Your task to perform on an android device: Search for "The Dispatcher" by John Scalzi on Goodreads Image 0: 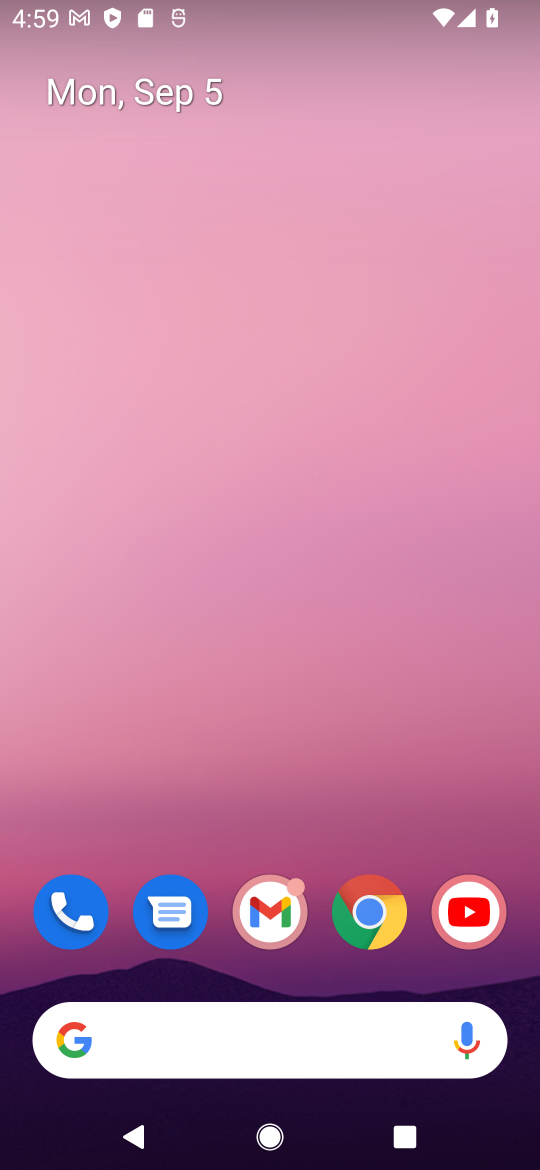
Step 0: click (373, 920)
Your task to perform on an android device: Search for "The Dispatcher" by John Scalzi on Goodreads Image 1: 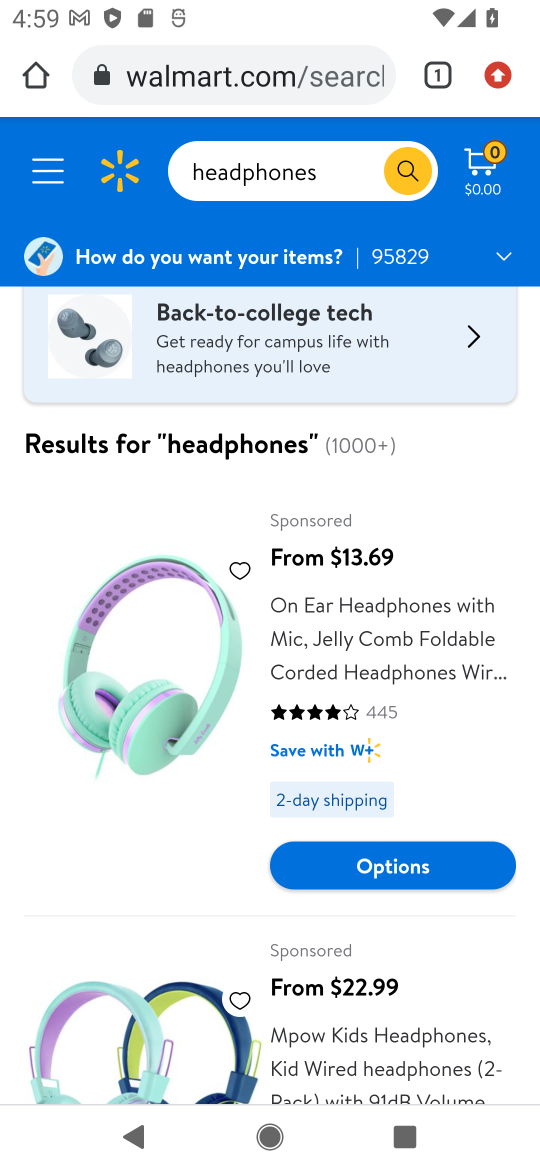
Step 1: click (280, 76)
Your task to perform on an android device: Search for "The Dispatcher" by John Scalzi on Goodreads Image 2: 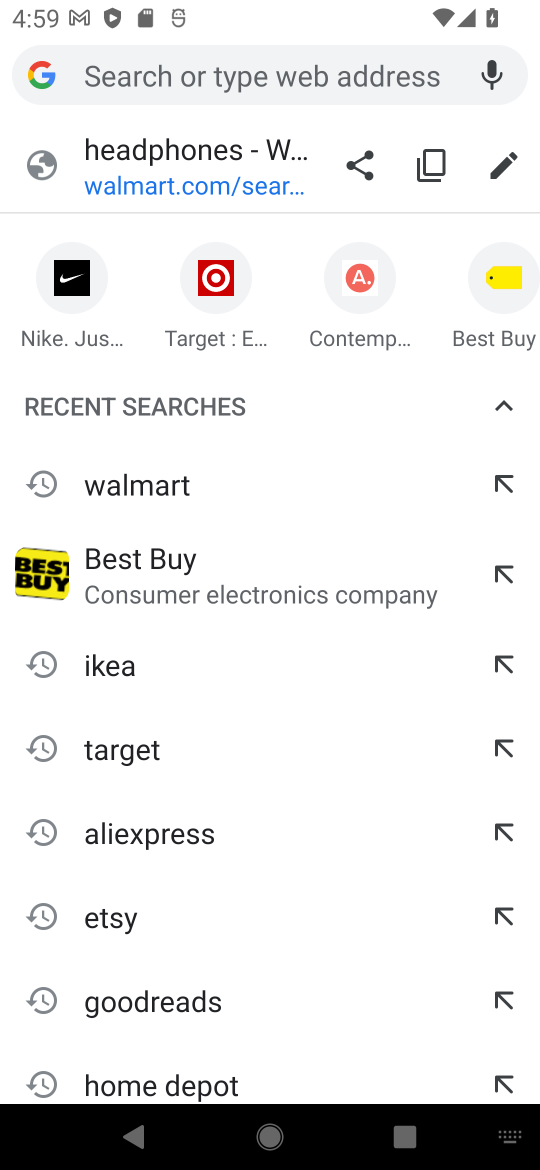
Step 2: type "goodreads"
Your task to perform on an android device: Search for "The Dispatcher" by John Scalzi on Goodreads Image 3: 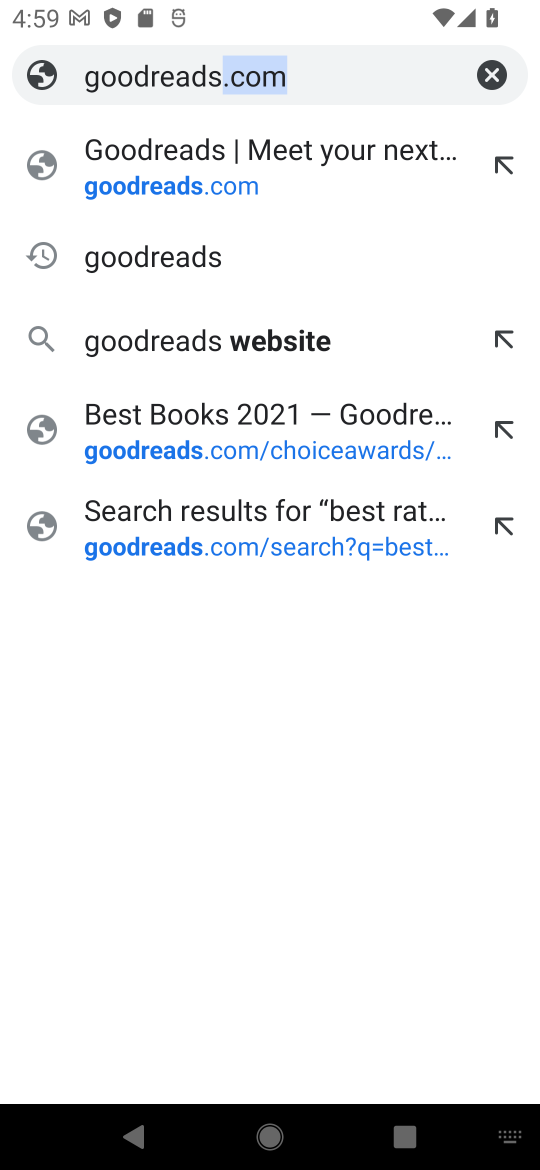
Step 3: press enter
Your task to perform on an android device: Search for "The Dispatcher" by John Scalzi on Goodreads Image 4: 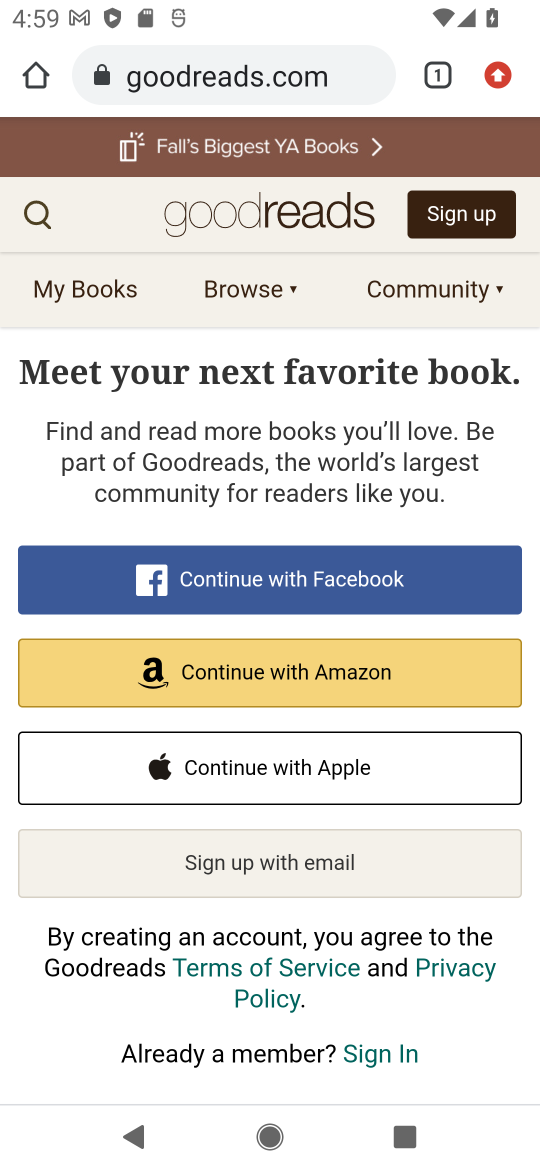
Step 4: click (311, 927)
Your task to perform on an android device: Search for "The Dispatcher" by John Scalzi on Goodreads Image 5: 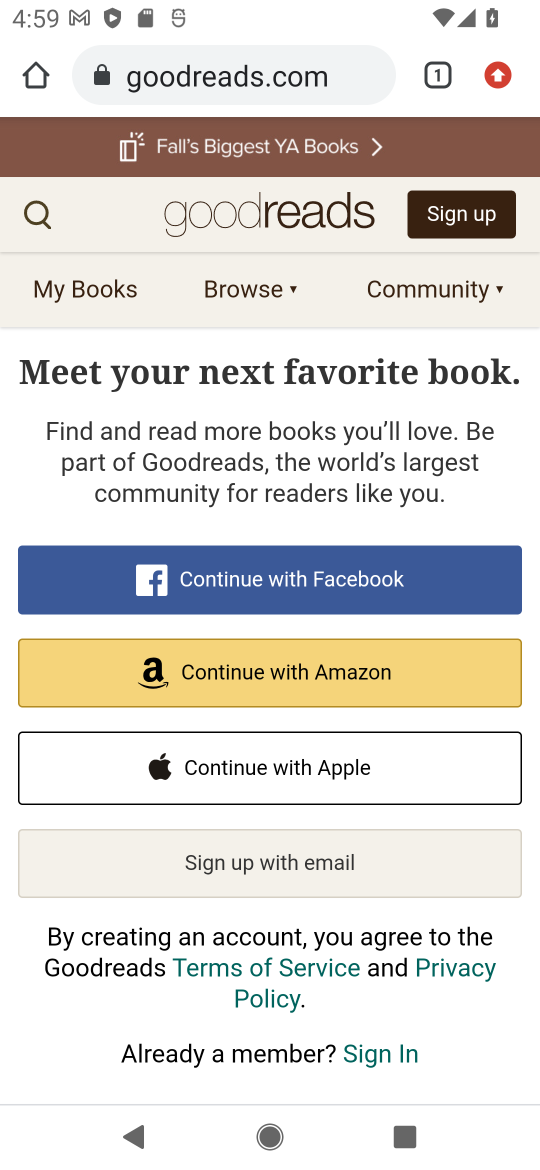
Step 5: drag from (295, 967) to (292, 464)
Your task to perform on an android device: Search for "The Dispatcher" by John Scalzi on Goodreads Image 6: 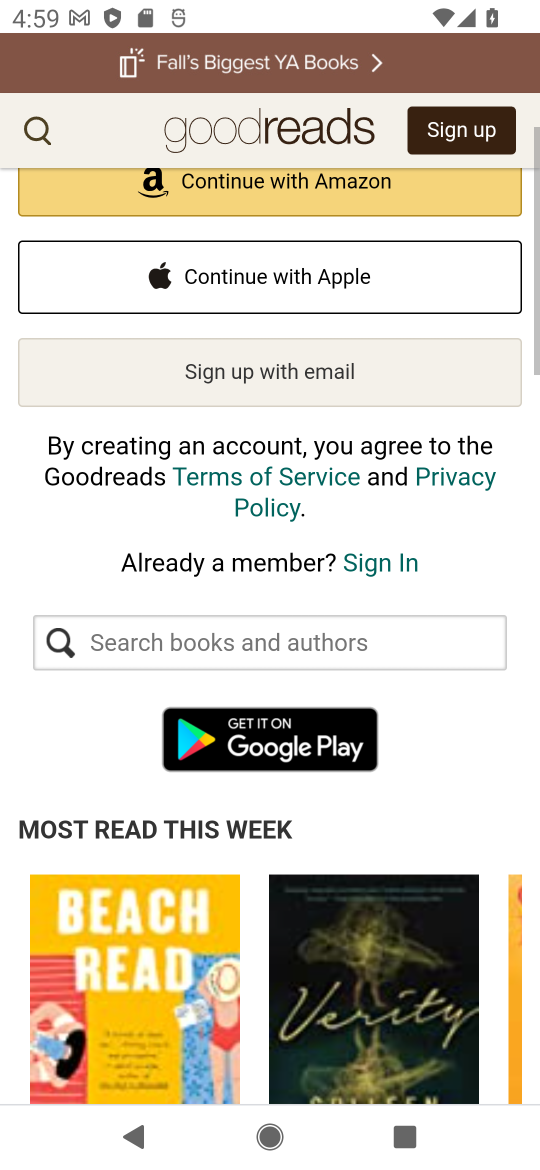
Step 6: click (227, 639)
Your task to perform on an android device: Search for "The Dispatcher" by John Scalzi on Goodreads Image 7: 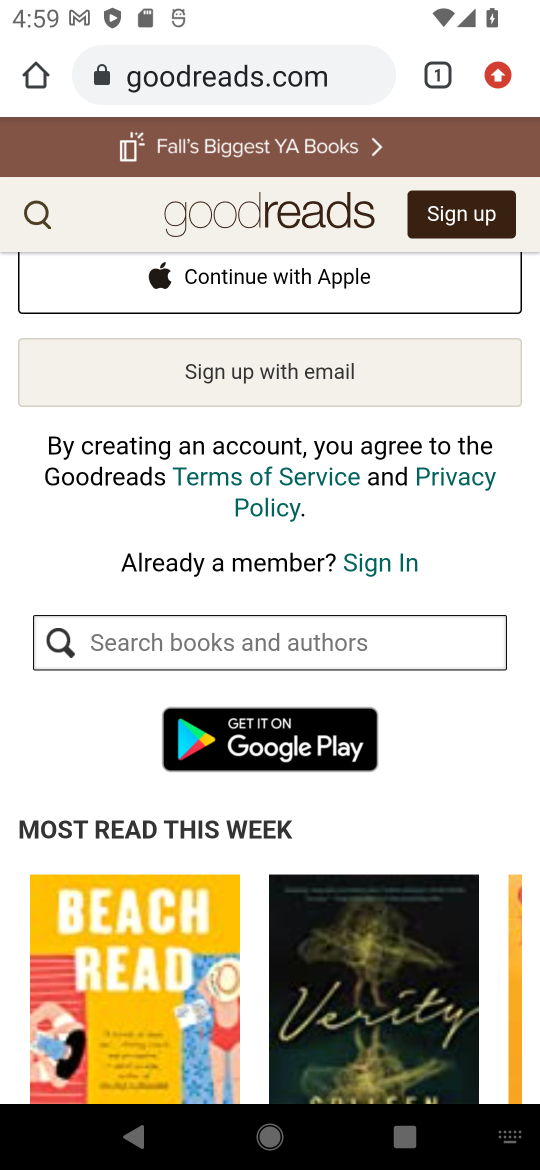
Step 7: type "The dispatcher by John Scalzi"
Your task to perform on an android device: Search for "The Dispatcher" by John Scalzi on Goodreads Image 8: 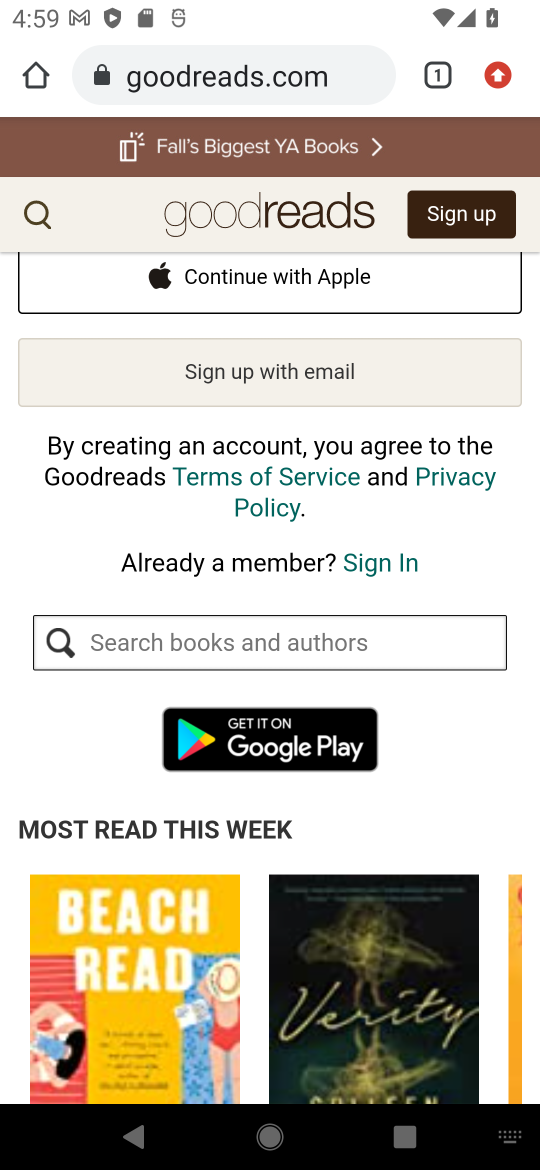
Step 8: type ""
Your task to perform on an android device: Search for "The Dispatcher" by John Scalzi on Goodreads Image 9: 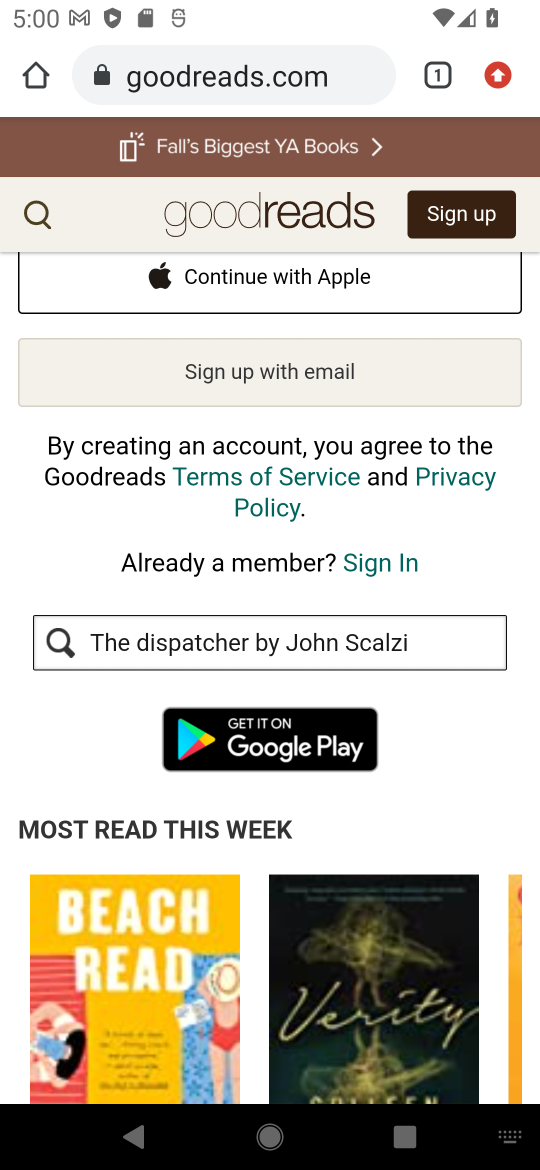
Step 9: press enter
Your task to perform on an android device: Search for "The Dispatcher" by John Scalzi on Goodreads Image 10: 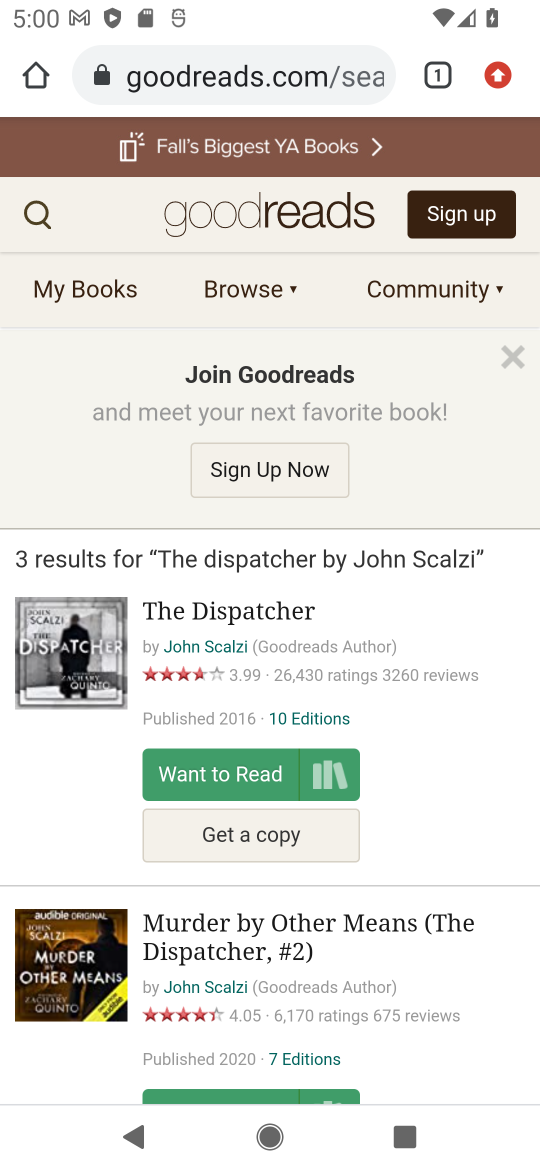
Step 10: task complete